Your task to perform on an android device: Open display settings Image 0: 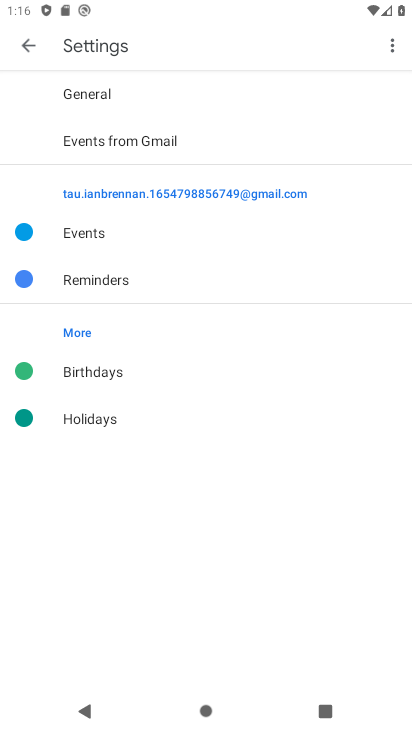
Step 0: press home button
Your task to perform on an android device: Open display settings Image 1: 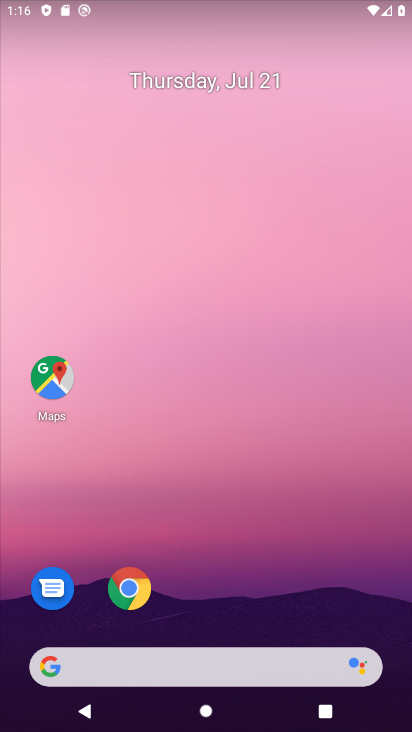
Step 1: drag from (211, 627) to (230, 1)
Your task to perform on an android device: Open display settings Image 2: 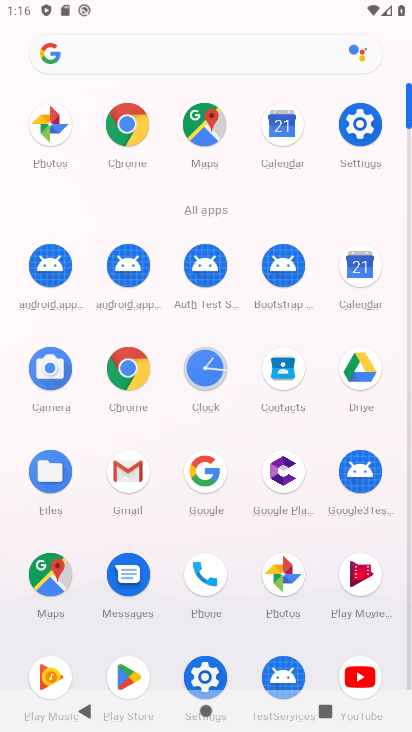
Step 2: click (358, 123)
Your task to perform on an android device: Open display settings Image 3: 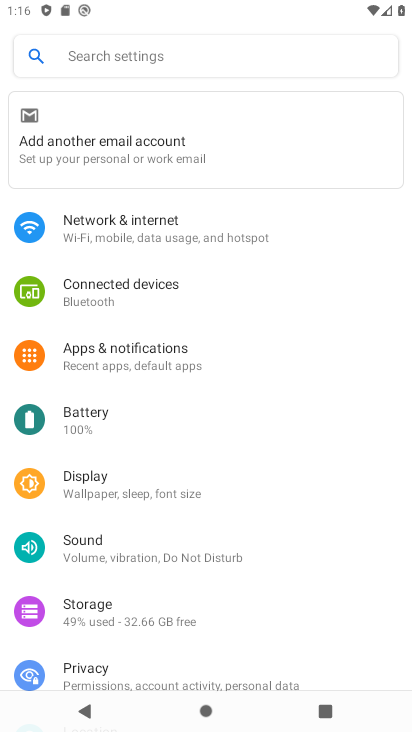
Step 3: click (88, 488)
Your task to perform on an android device: Open display settings Image 4: 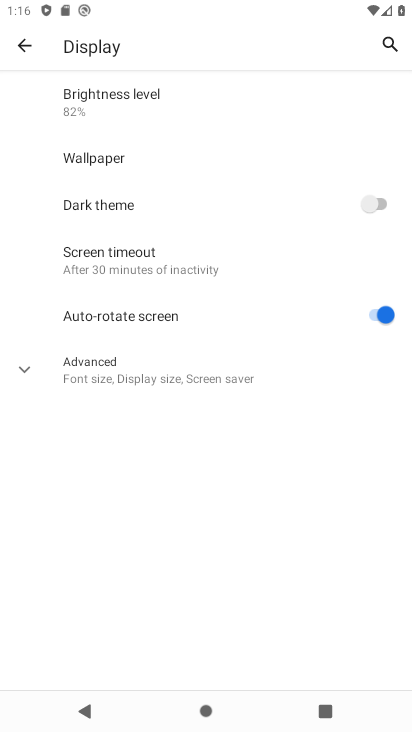
Step 4: click (100, 370)
Your task to perform on an android device: Open display settings Image 5: 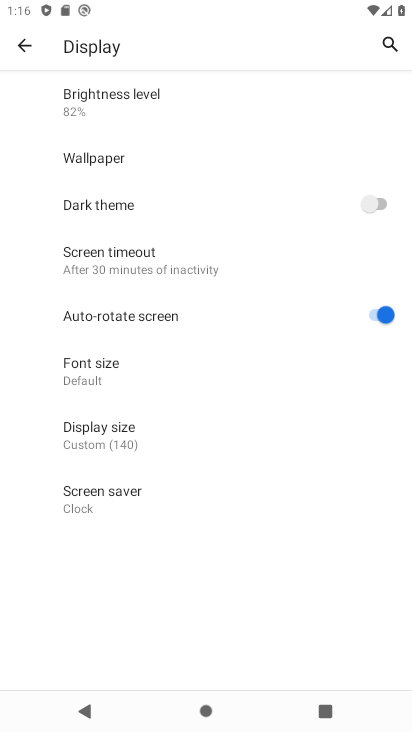
Step 5: task complete